Your task to perform on an android device: Check the weather Image 0: 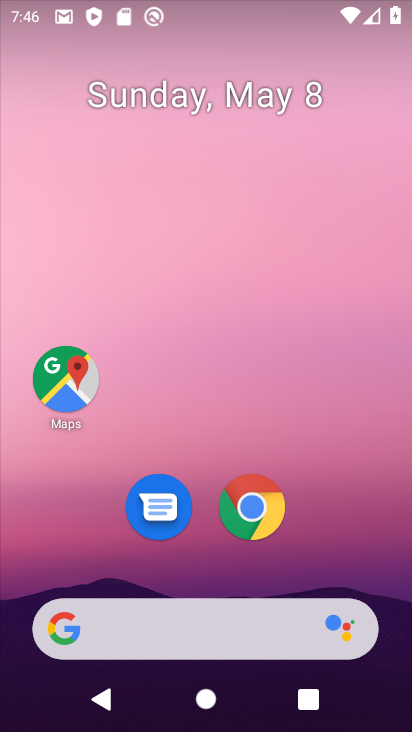
Step 0: click (261, 507)
Your task to perform on an android device: Check the weather Image 1: 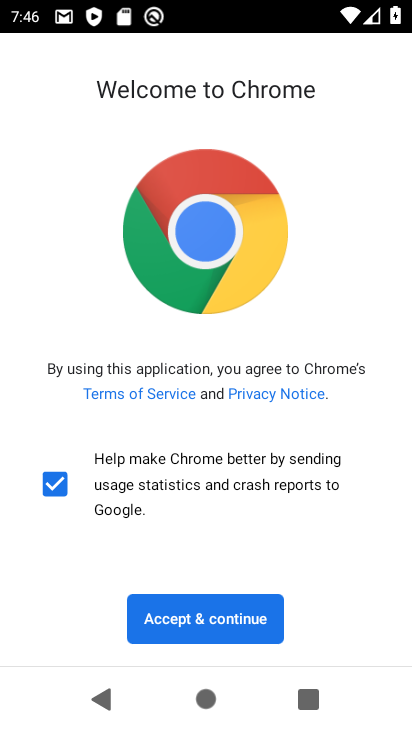
Step 1: click (214, 609)
Your task to perform on an android device: Check the weather Image 2: 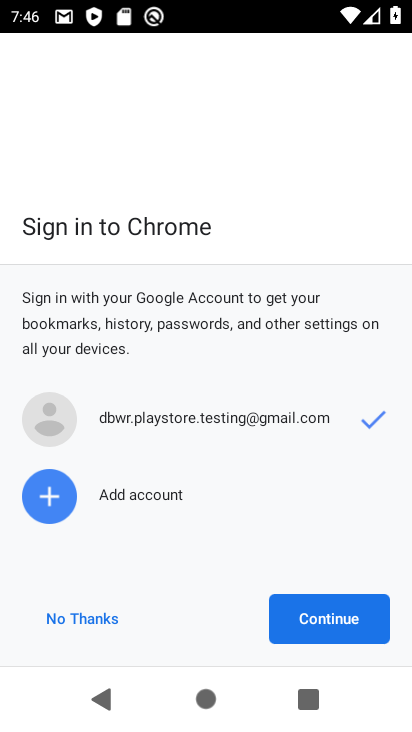
Step 2: click (351, 622)
Your task to perform on an android device: Check the weather Image 3: 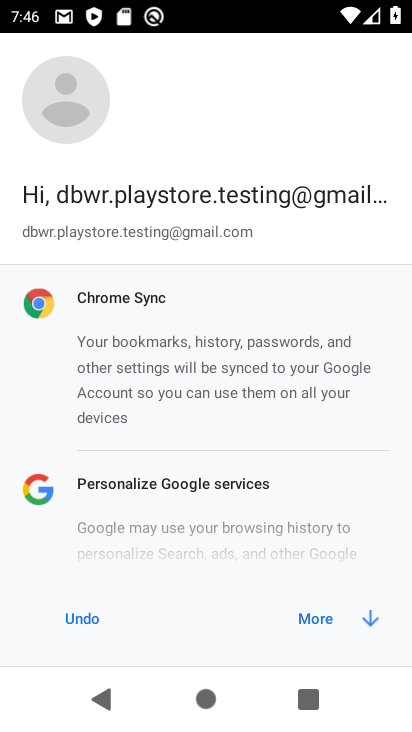
Step 3: click (351, 622)
Your task to perform on an android device: Check the weather Image 4: 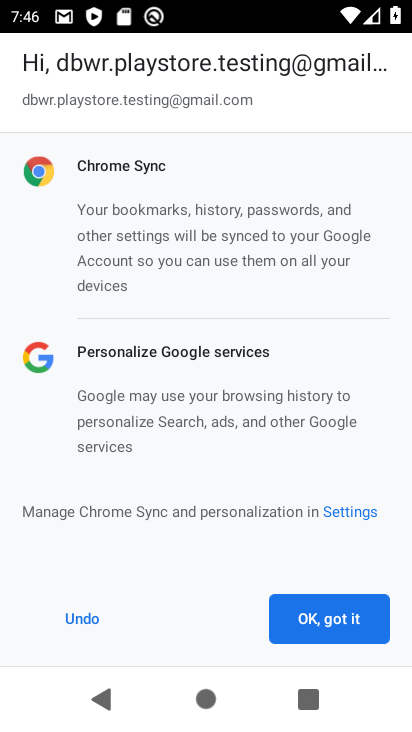
Step 4: click (351, 622)
Your task to perform on an android device: Check the weather Image 5: 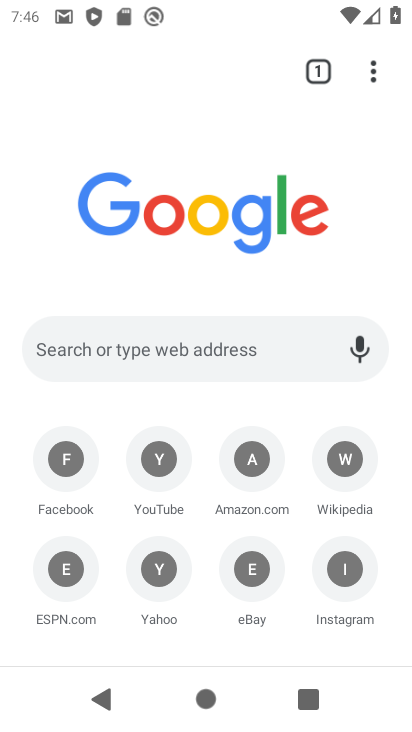
Step 5: click (172, 332)
Your task to perform on an android device: Check the weather Image 6: 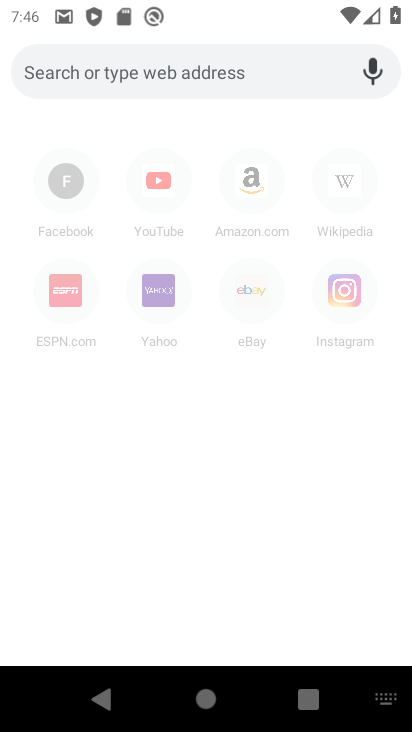
Step 6: click (135, 57)
Your task to perform on an android device: Check the weather Image 7: 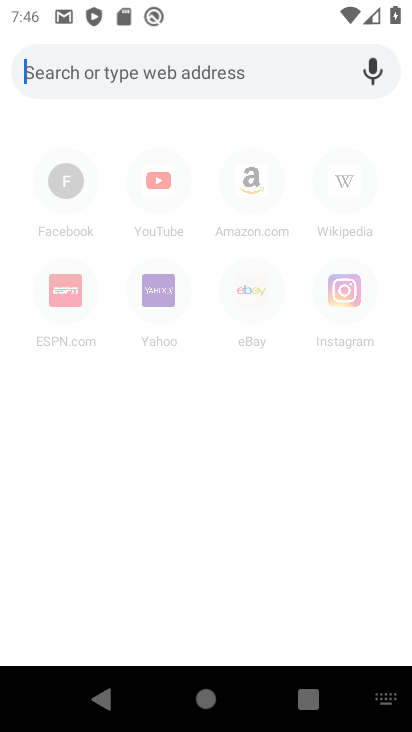
Step 7: type "weather"
Your task to perform on an android device: Check the weather Image 8: 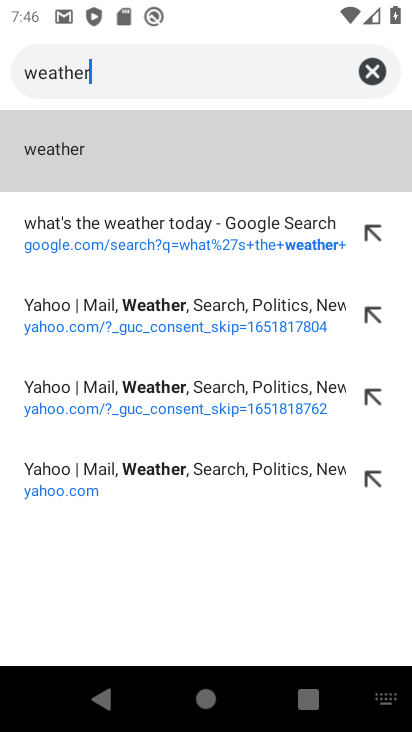
Step 8: click (193, 221)
Your task to perform on an android device: Check the weather Image 9: 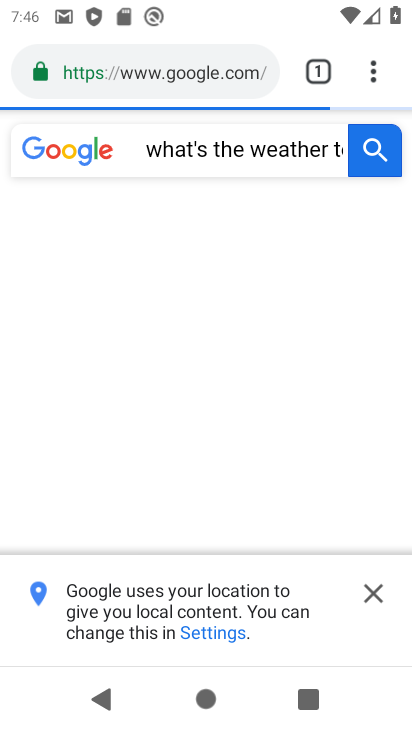
Step 9: click (371, 596)
Your task to perform on an android device: Check the weather Image 10: 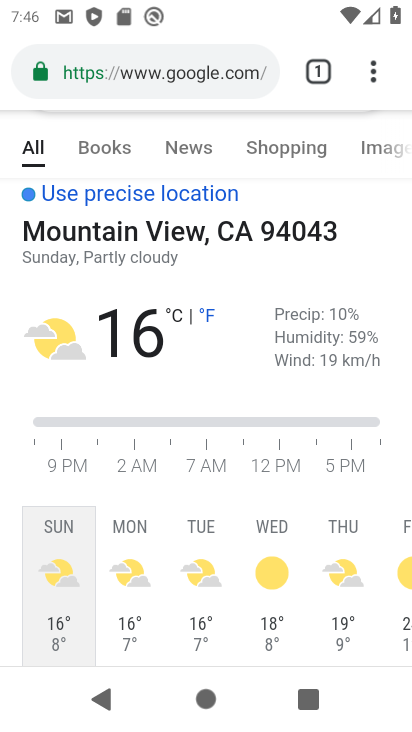
Step 10: task complete